Your task to perform on an android device: change the clock style Image 0: 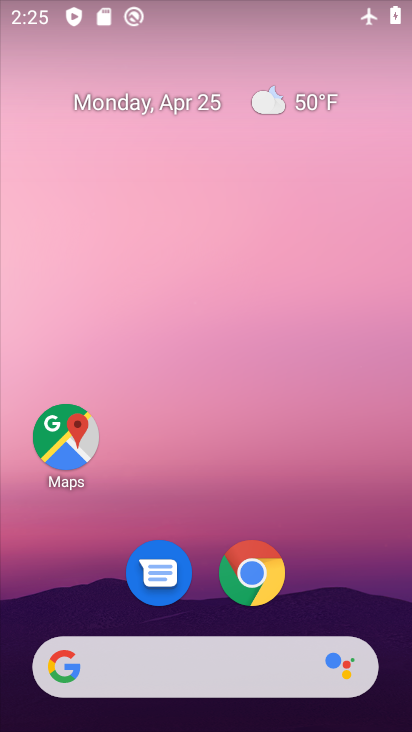
Step 0: drag from (339, 567) to (279, 120)
Your task to perform on an android device: change the clock style Image 1: 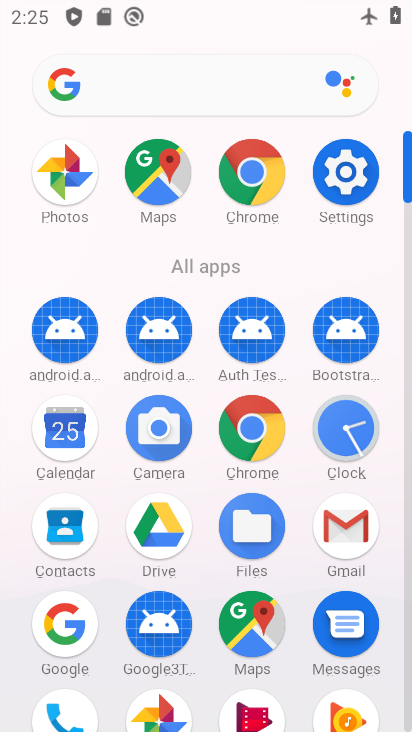
Step 1: click (346, 418)
Your task to perform on an android device: change the clock style Image 2: 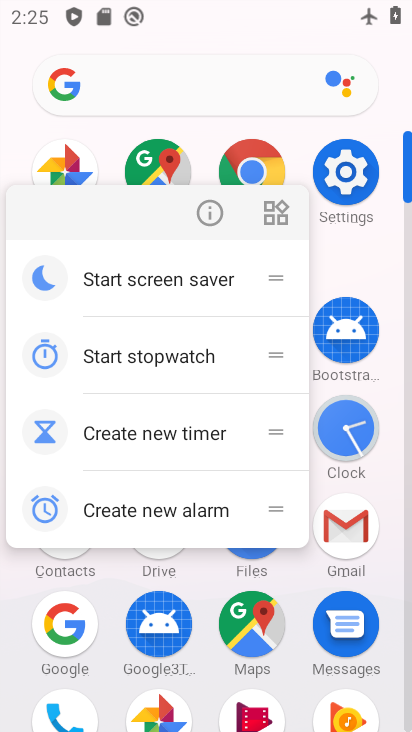
Step 2: click (346, 418)
Your task to perform on an android device: change the clock style Image 3: 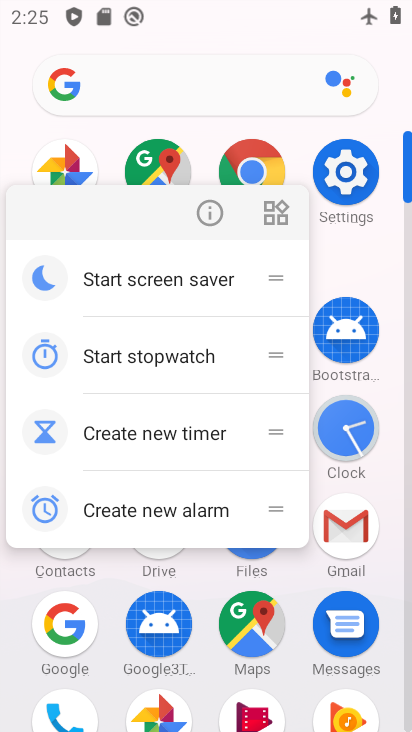
Step 3: click (346, 416)
Your task to perform on an android device: change the clock style Image 4: 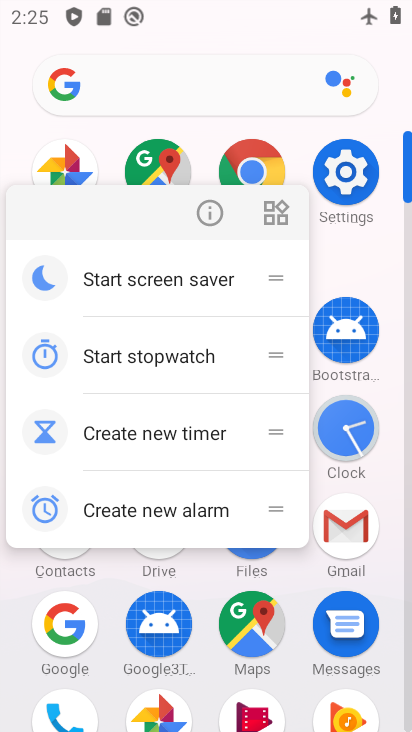
Step 4: click (347, 448)
Your task to perform on an android device: change the clock style Image 5: 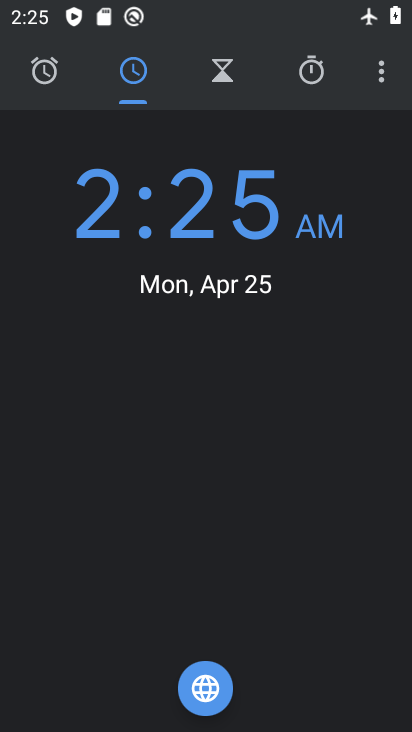
Step 5: click (378, 74)
Your task to perform on an android device: change the clock style Image 6: 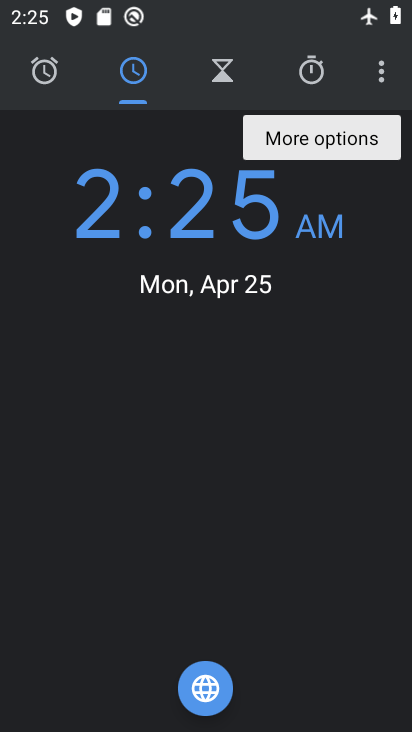
Step 6: click (378, 74)
Your task to perform on an android device: change the clock style Image 7: 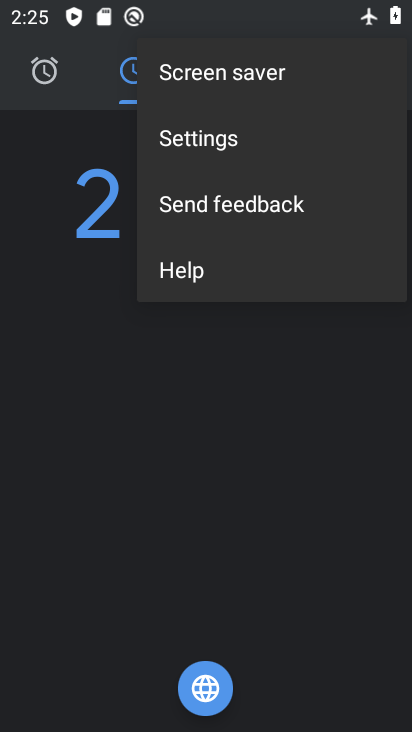
Step 7: click (179, 138)
Your task to perform on an android device: change the clock style Image 8: 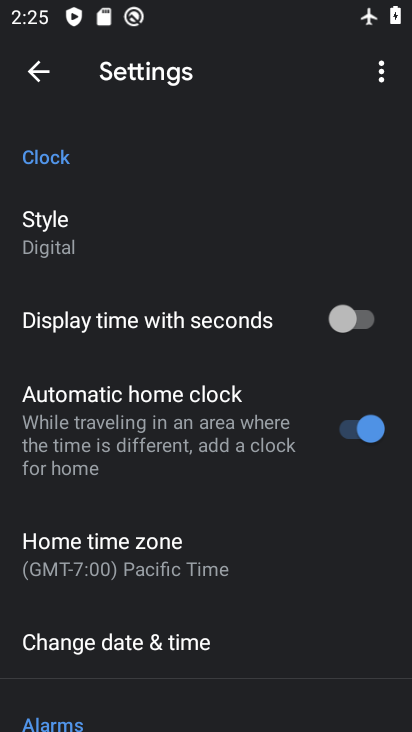
Step 8: click (80, 232)
Your task to perform on an android device: change the clock style Image 9: 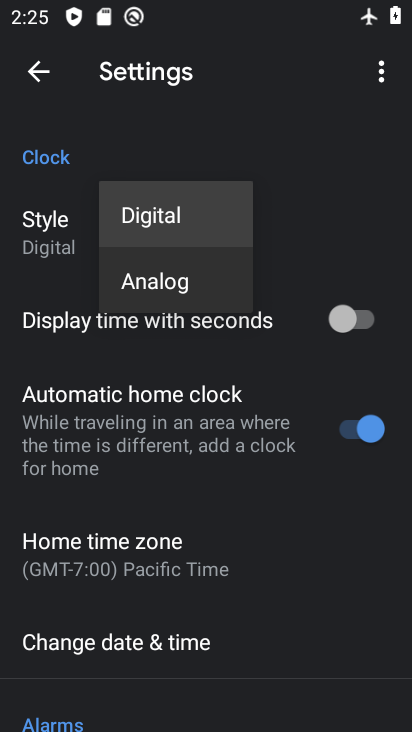
Step 9: click (139, 280)
Your task to perform on an android device: change the clock style Image 10: 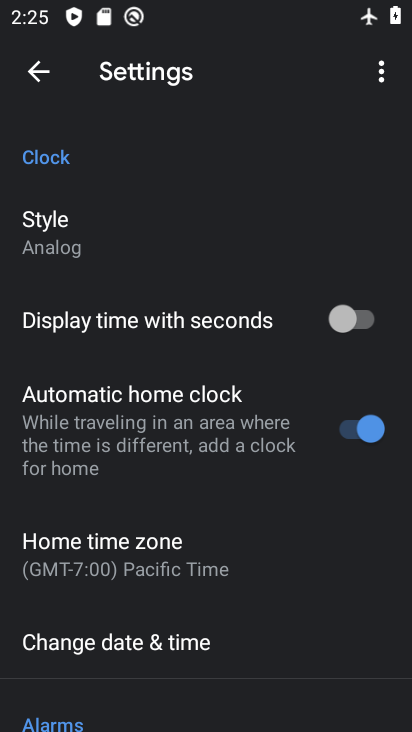
Step 10: task complete